Your task to perform on an android device: Open Amazon Image 0: 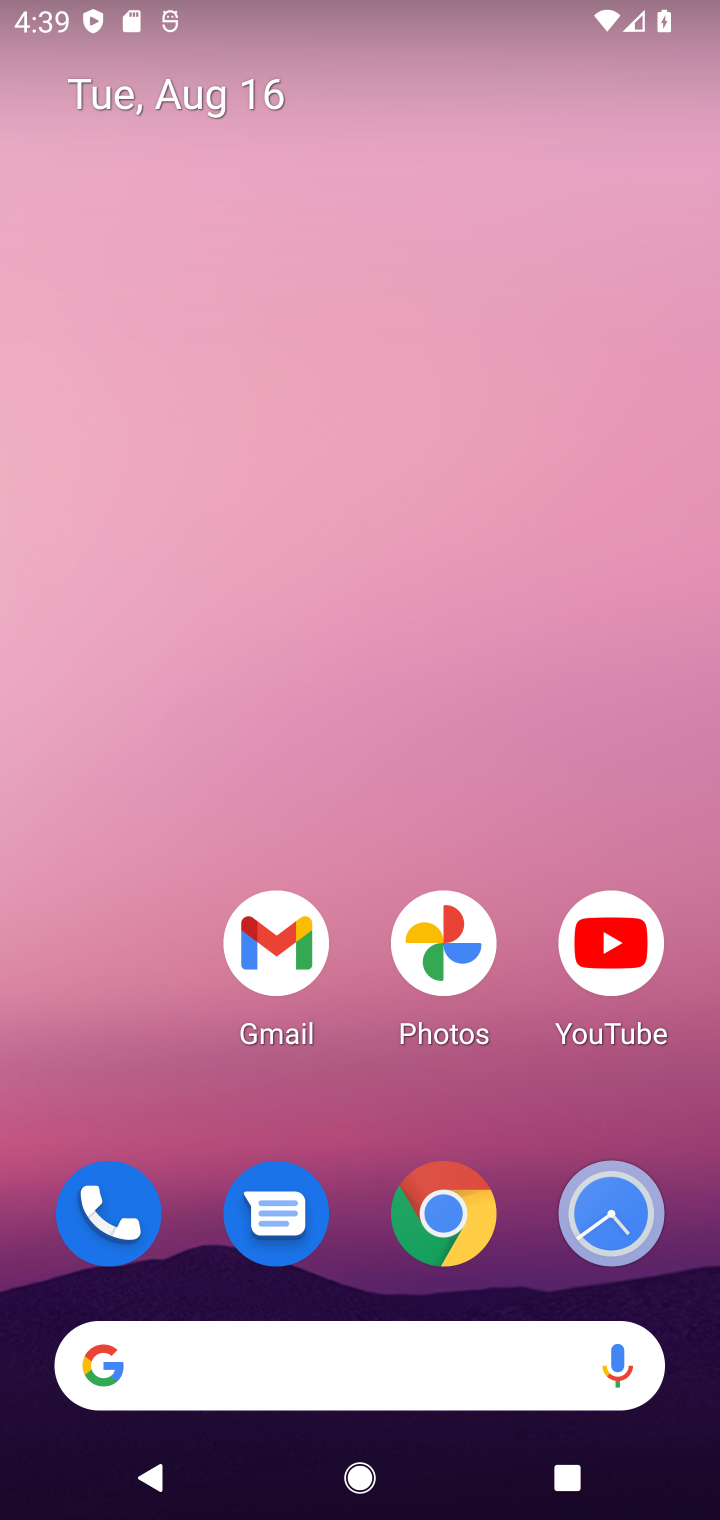
Step 0: drag from (350, 525) to (338, 250)
Your task to perform on an android device: Open Amazon Image 1: 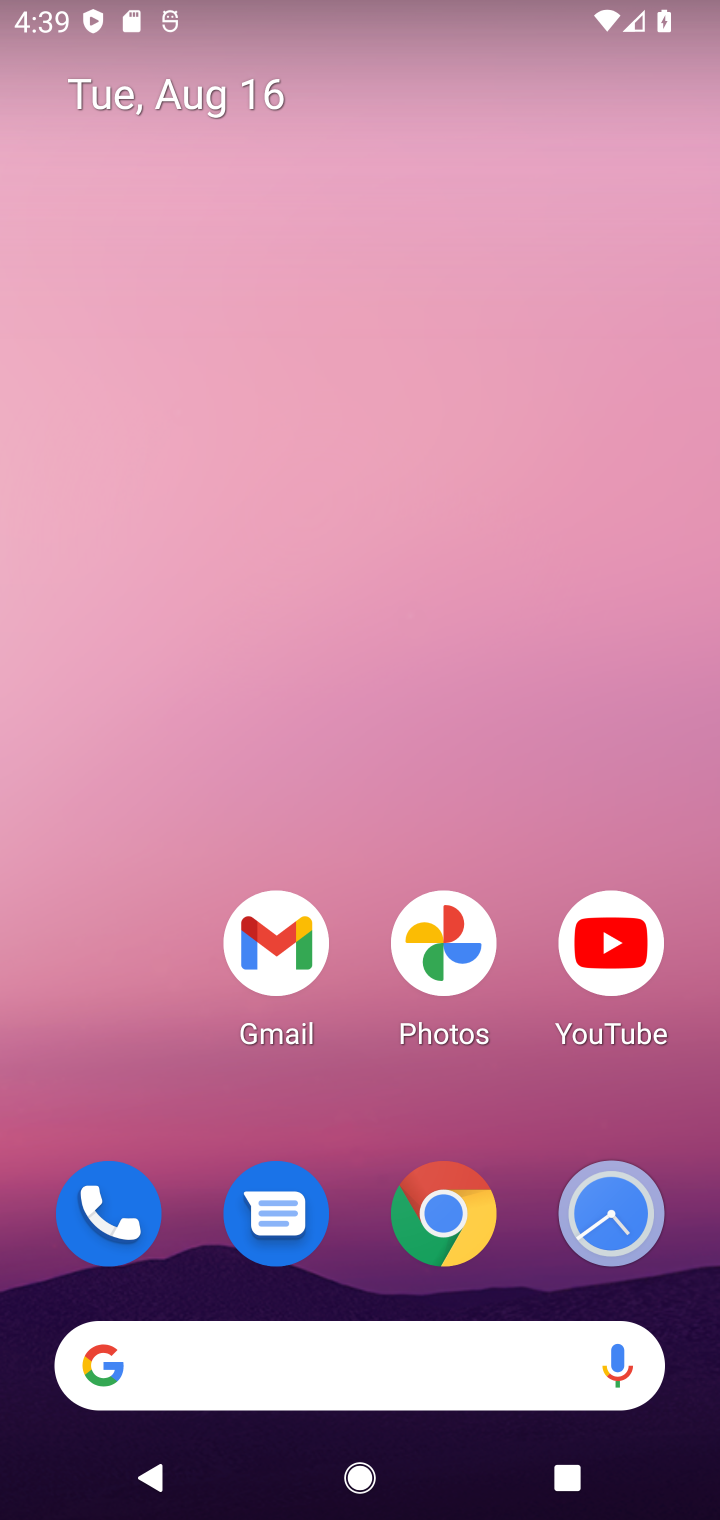
Step 1: drag from (174, 463) to (234, 0)
Your task to perform on an android device: Open Amazon Image 2: 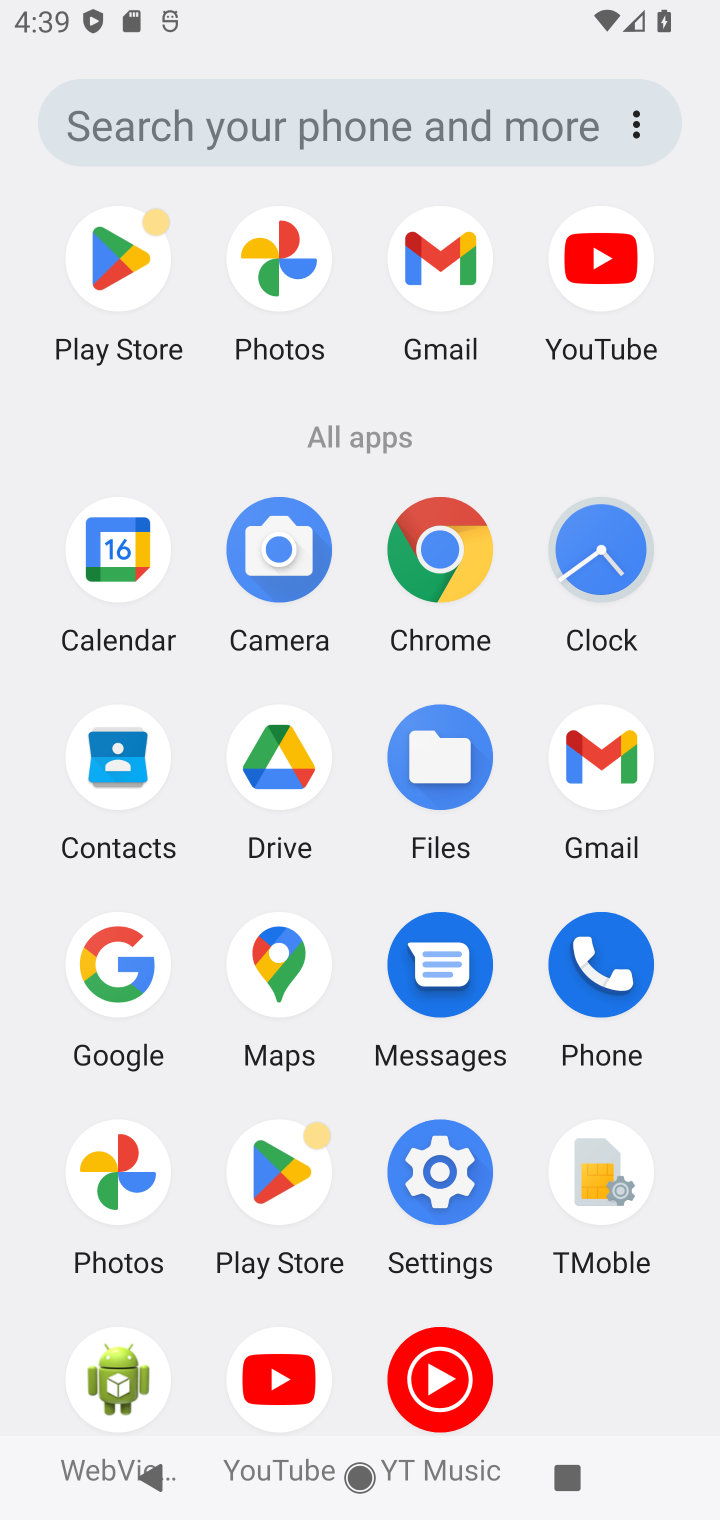
Step 2: click (433, 541)
Your task to perform on an android device: Open Amazon Image 3: 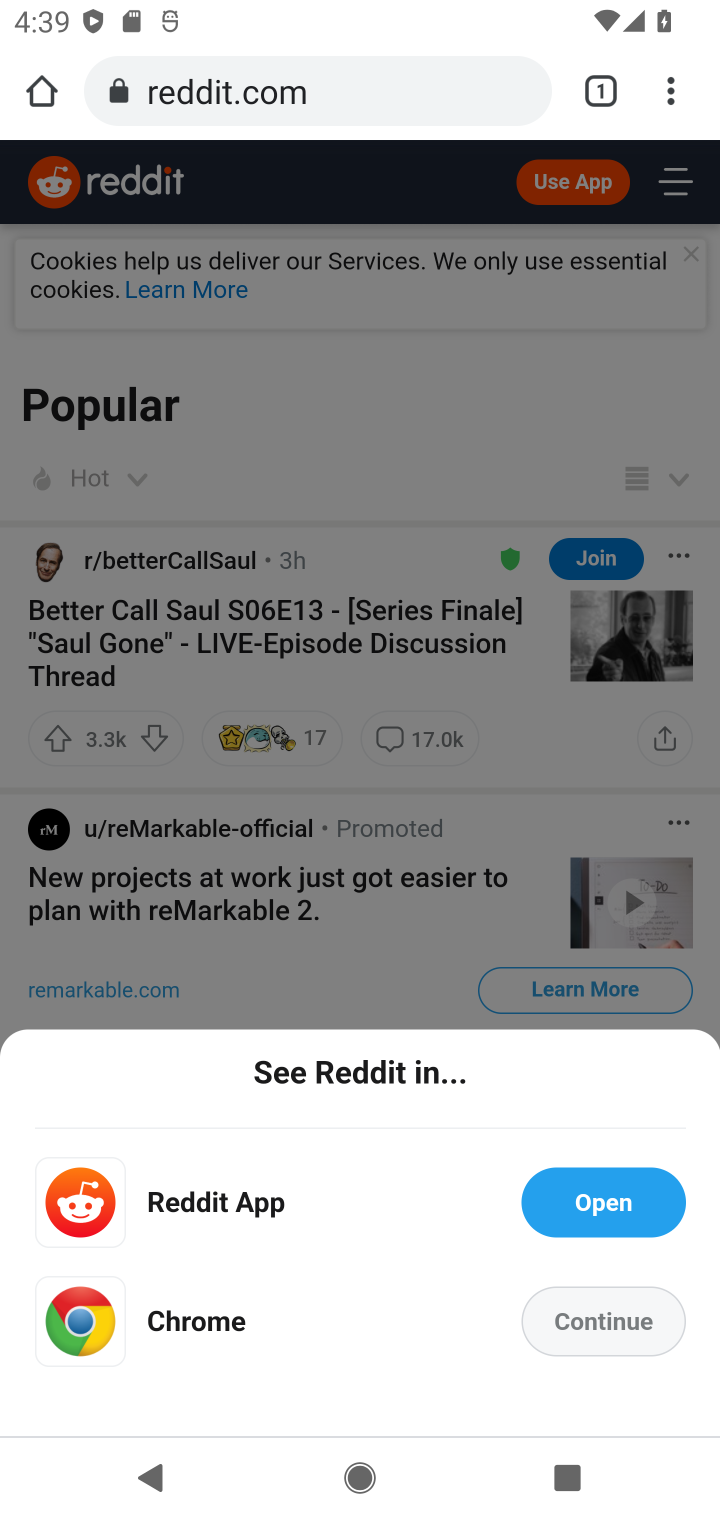
Step 3: click (330, 113)
Your task to perform on an android device: Open Amazon Image 4: 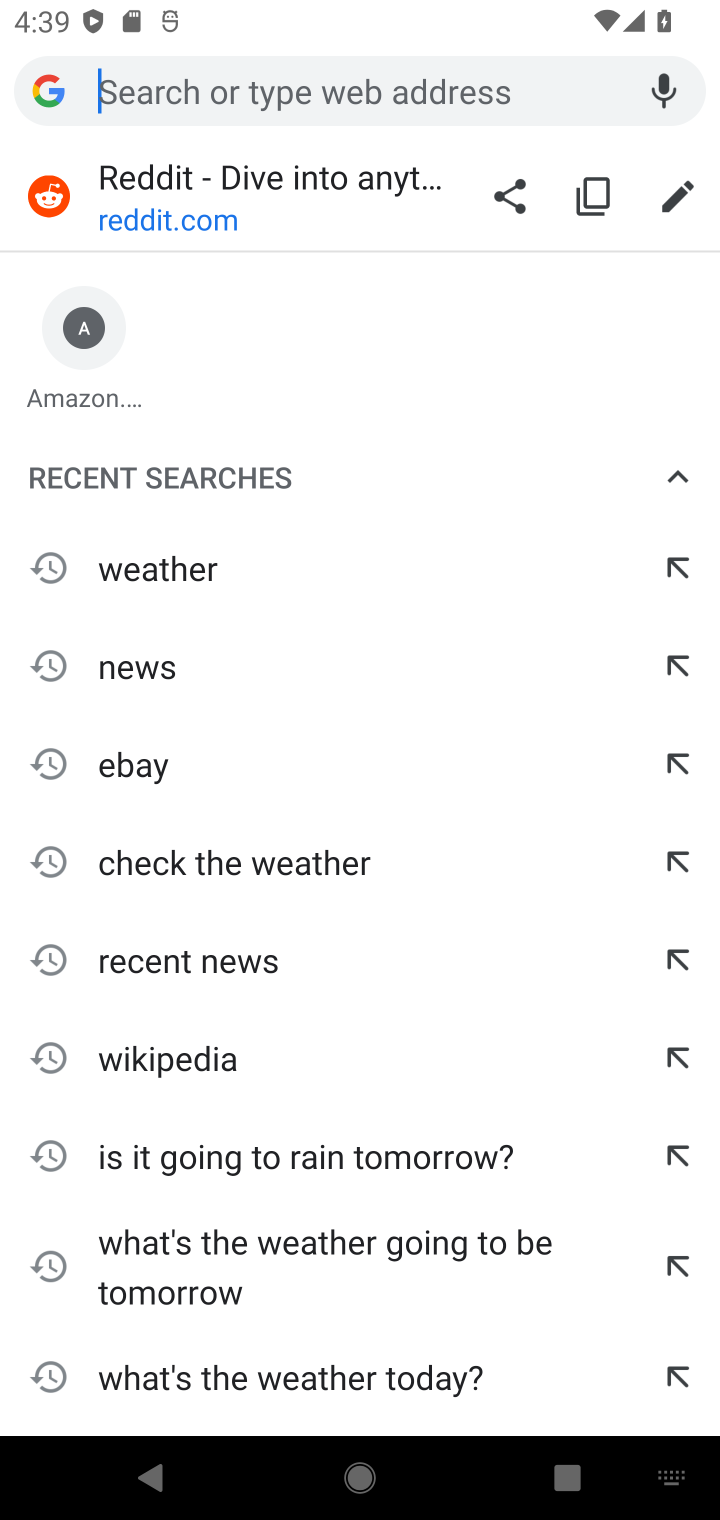
Step 4: type "amazon"
Your task to perform on an android device: Open Amazon Image 5: 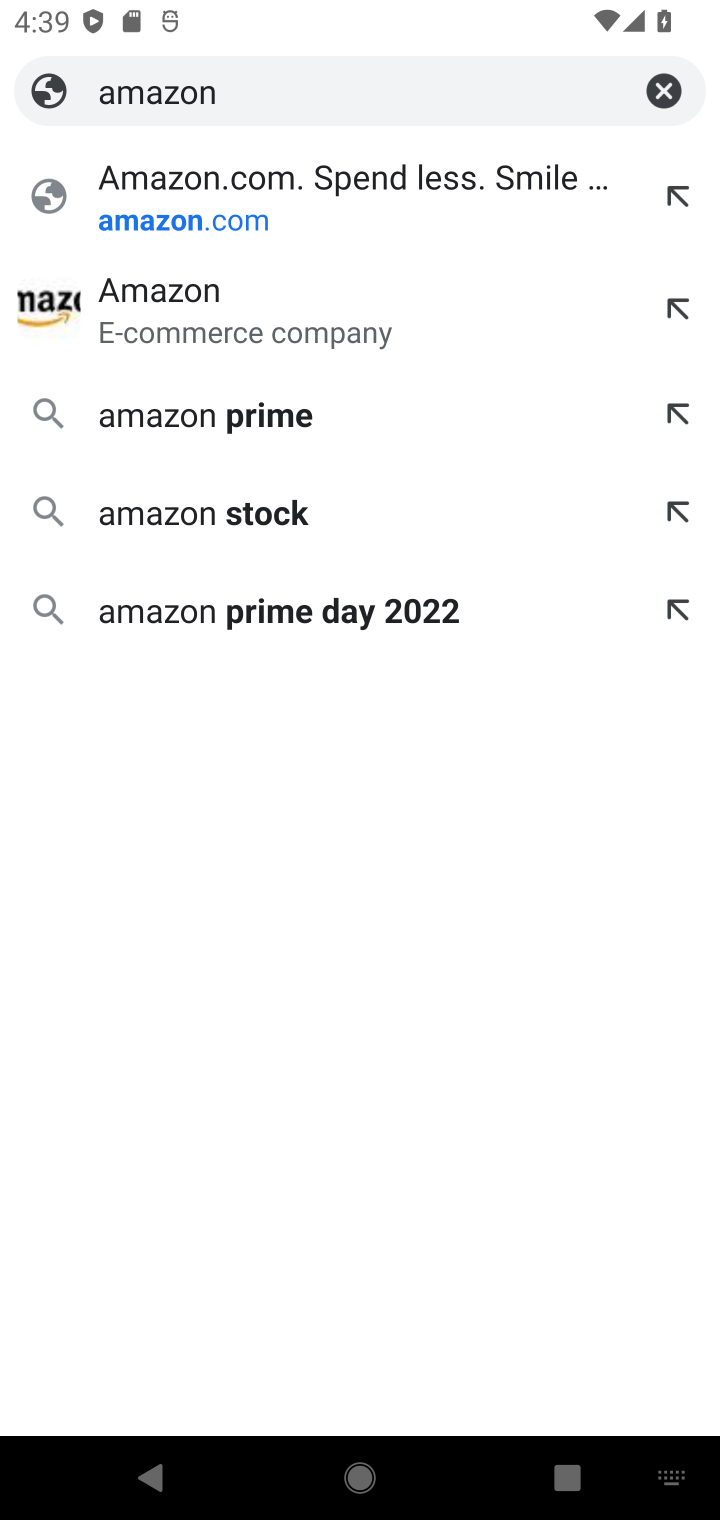
Step 5: click (241, 224)
Your task to perform on an android device: Open Amazon Image 6: 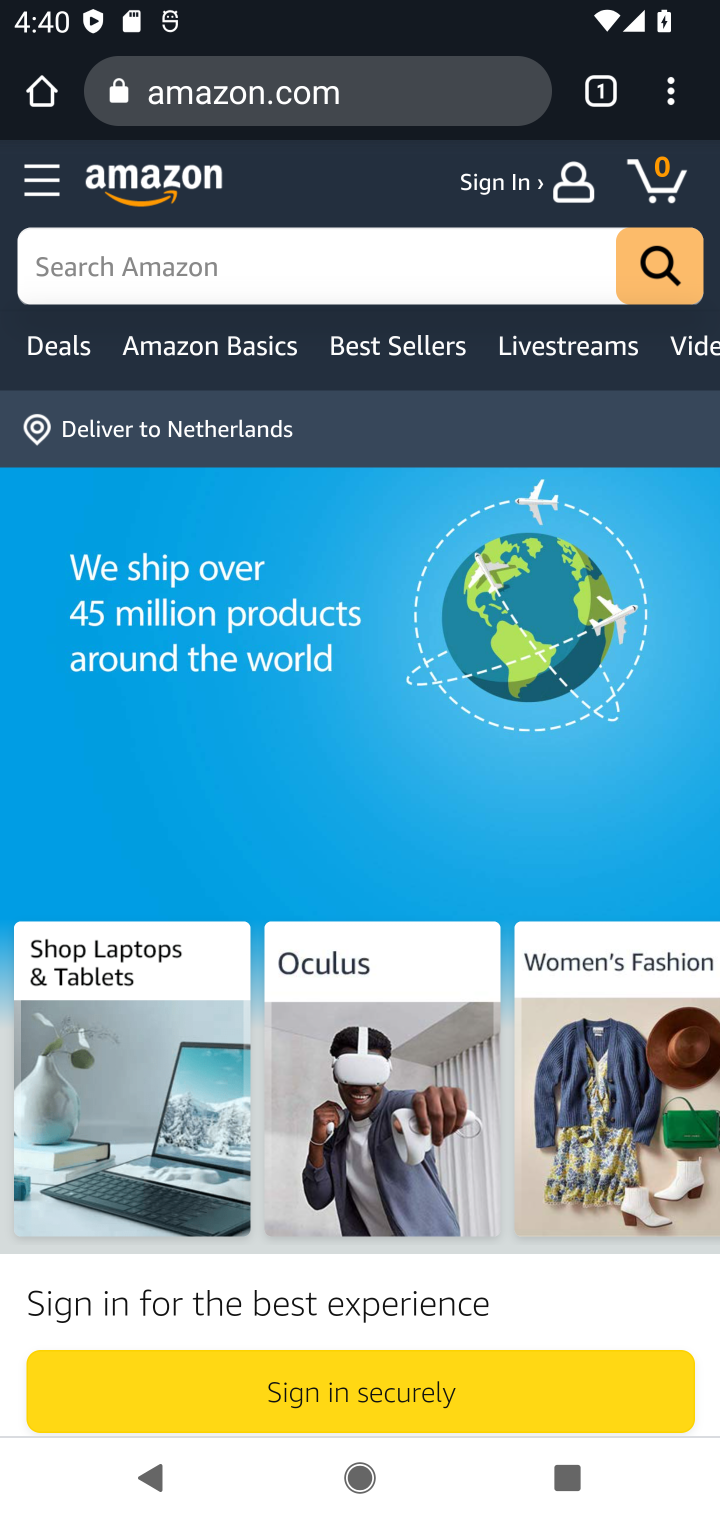
Step 6: task complete